Your task to perform on an android device: Open settings on Google Maps Image 0: 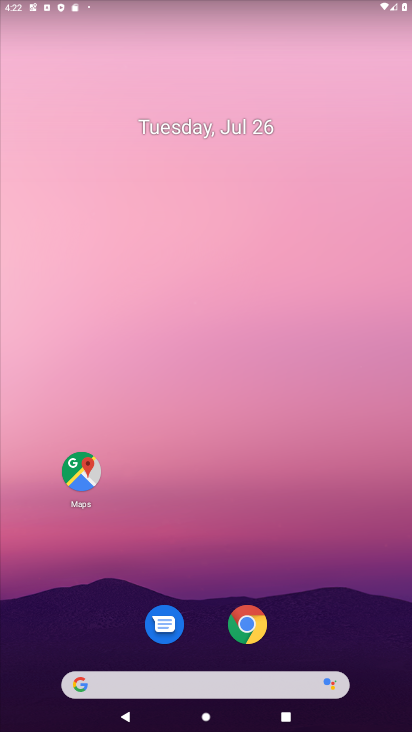
Step 0: drag from (203, 649) to (206, 25)
Your task to perform on an android device: Open settings on Google Maps Image 1: 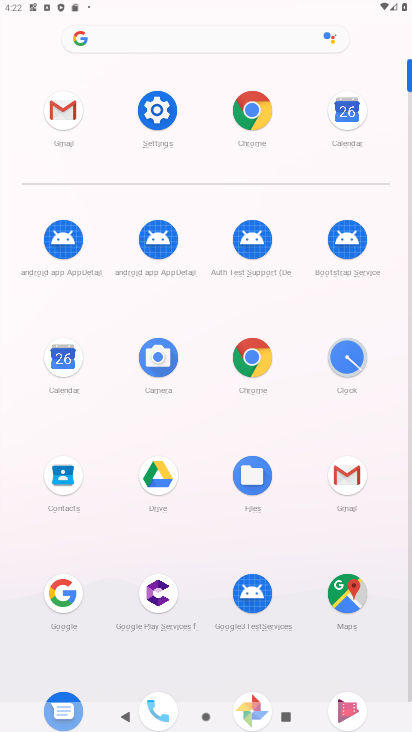
Step 1: click (360, 596)
Your task to perform on an android device: Open settings on Google Maps Image 2: 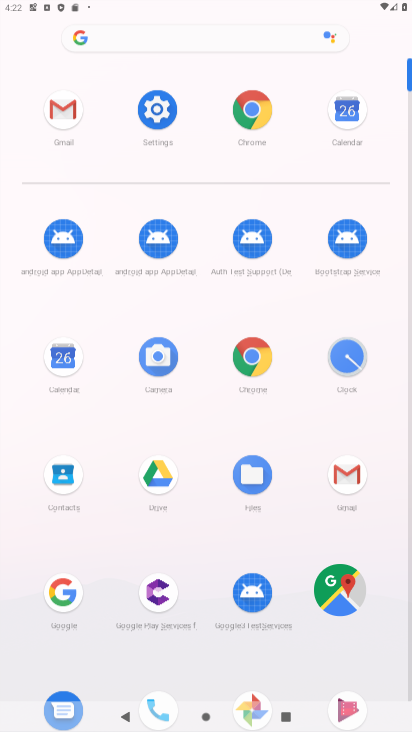
Step 2: click (338, 586)
Your task to perform on an android device: Open settings on Google Maps Image 3: 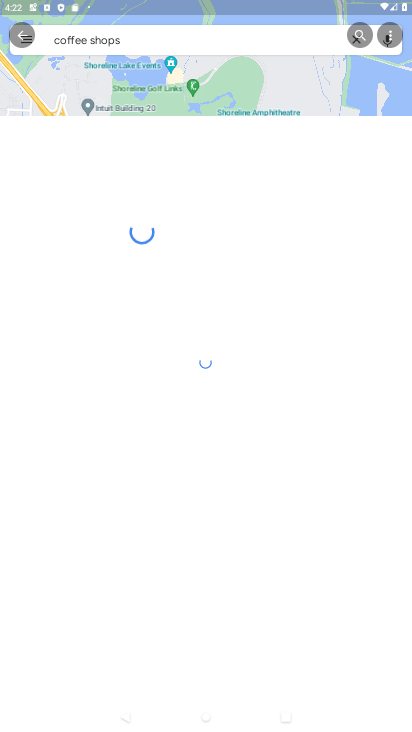
Step 3: press back button
Your task to perform on an android device: Open settings on Google Maps Image 4: 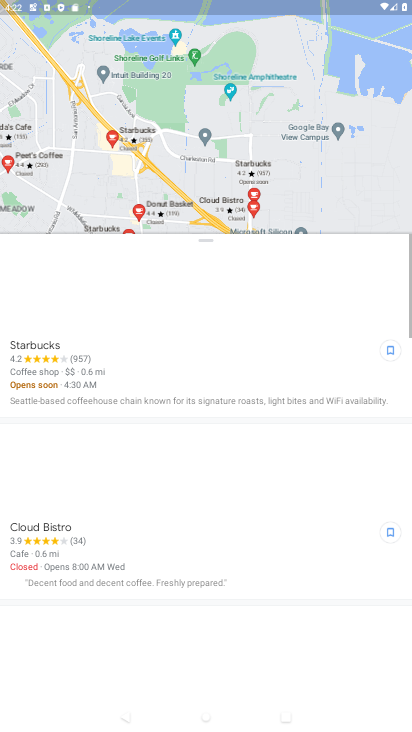
Step 4: press back button
Your task to perform on an android device: Open settings on Google Maps Image 5: 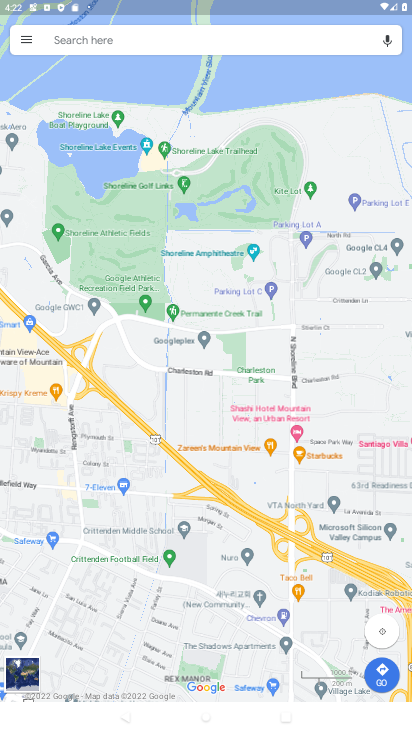
Step 5: click (32, 43)
Your task to perform on an android device: Open settings on Google Maps Image 6: 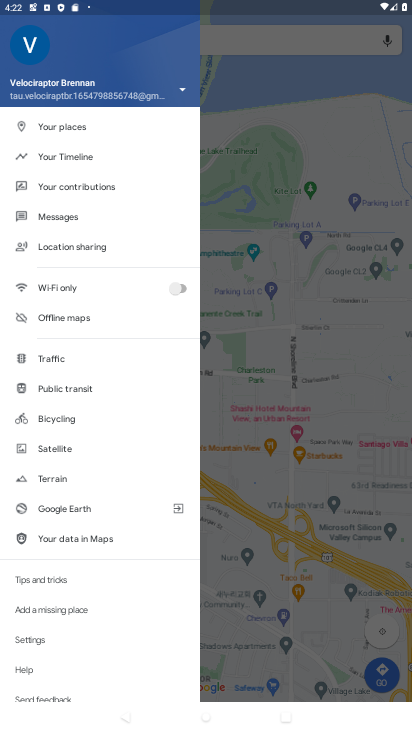
Step 6: click (110, 149)
Your task to perform on an android device: Open settings on Google Maps Image 7: 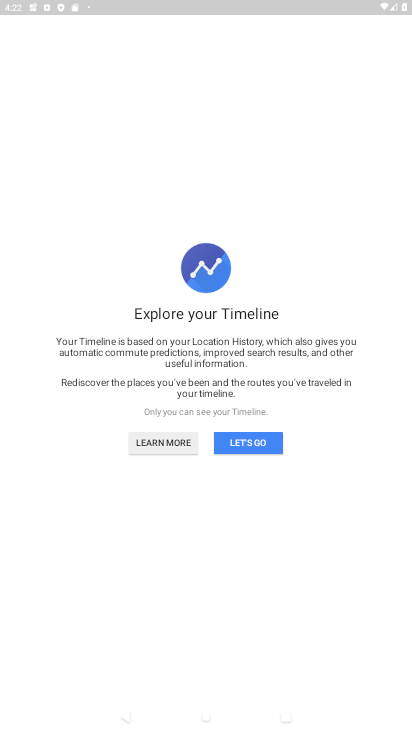
Step 7: click (236, 445)
Your task to perform on an android device: Open settings on Google Maps Image 8: 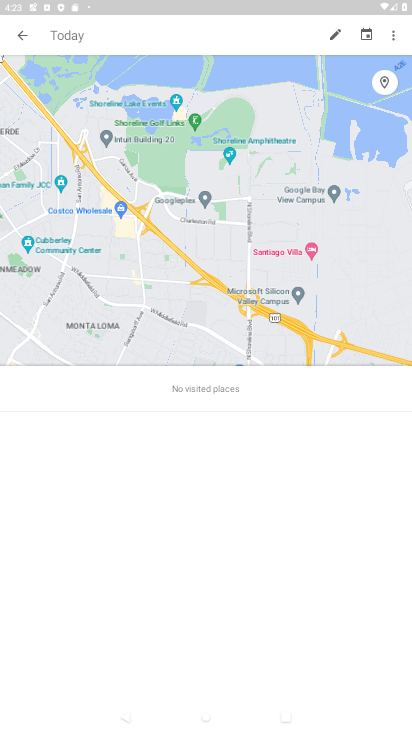
Step 8: click (397, 38)
Your task to perform on an android device: Open settings on Google Maps Image 9: 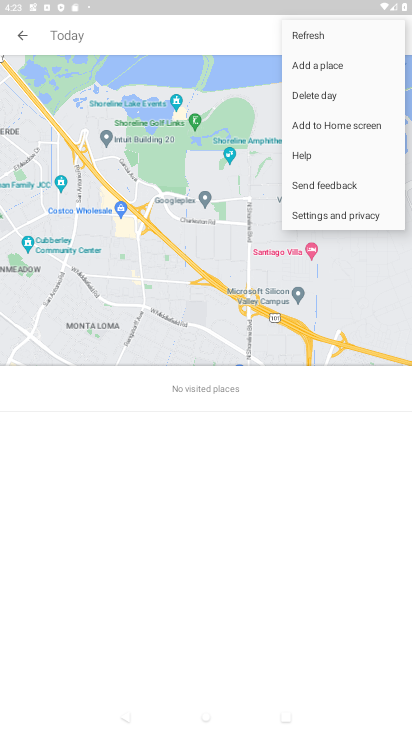
Step 9: click (333, 217)
Your task to perform on an android device: Open settings on Google Maps Image 10: 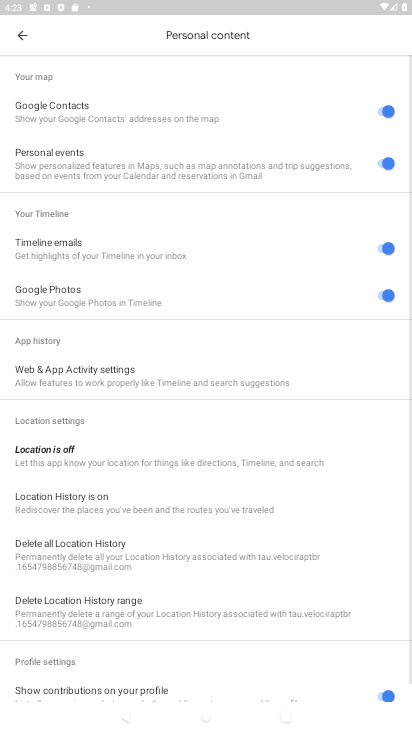
Step 10: task complete